Your task to perform on an android device: create a new album in the google photos Image 0: 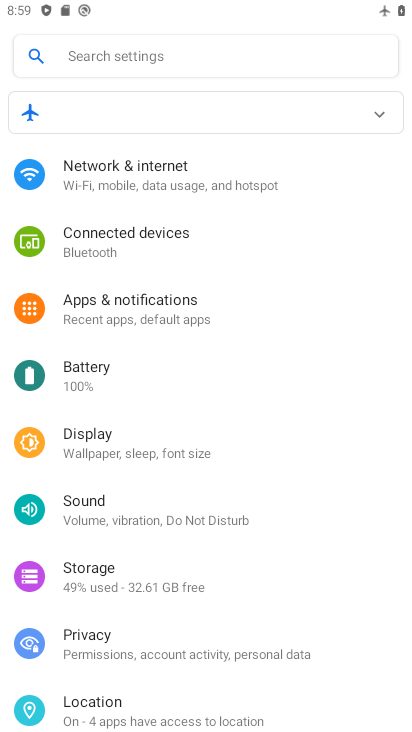
Step 0: press home button
Your task to perform on an android device: create a new album in the google photos Image 1: 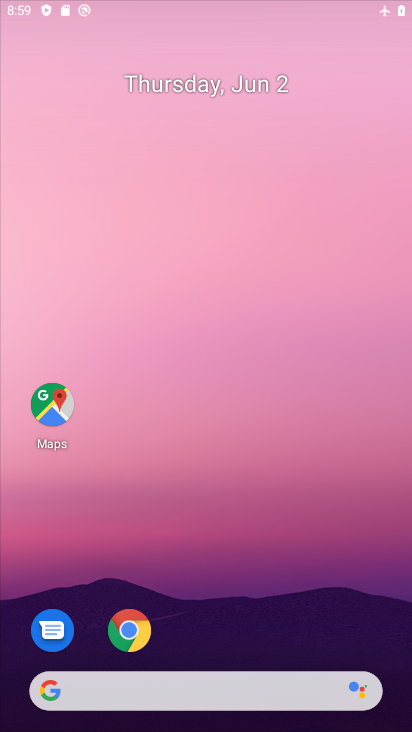
Step 1: drag from (208, 645) to (199, 60)
Your task to perform on an android device: create a new album in the google photos Image 2: 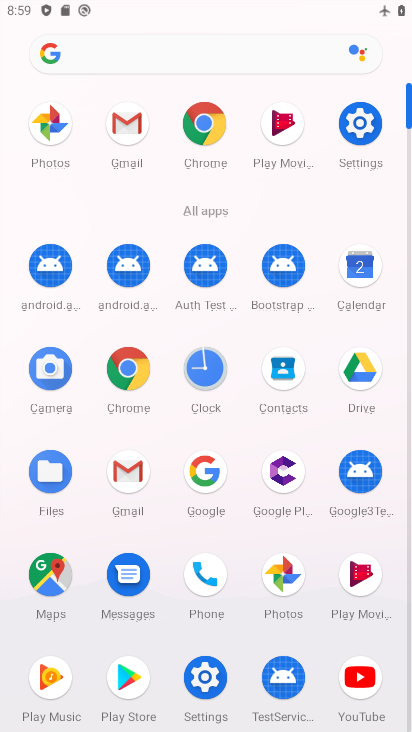
Step 2: click (286, 578)
Your task to perform on an android device: create a new album in the google photos Image 3: 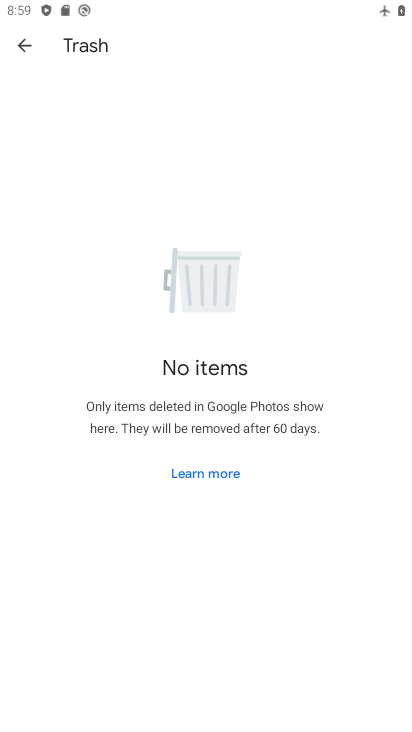
Step 3: press back button
Your task to perform on an android device: create a new album in the google photos Image 4: 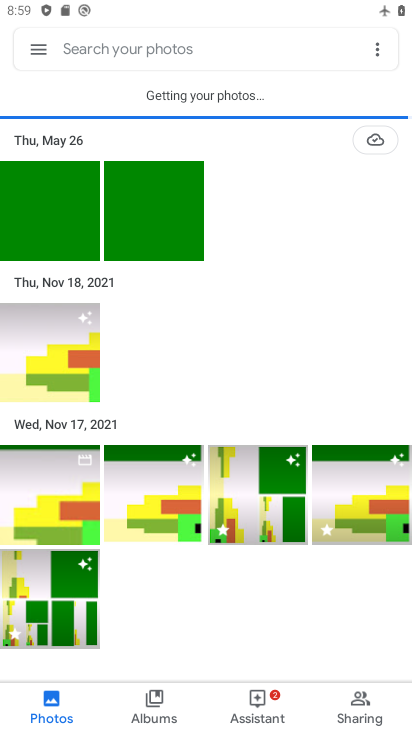
Step 4: click (167, 699)
Your task to perform on an android device: create a new album in the google photos Image 5: 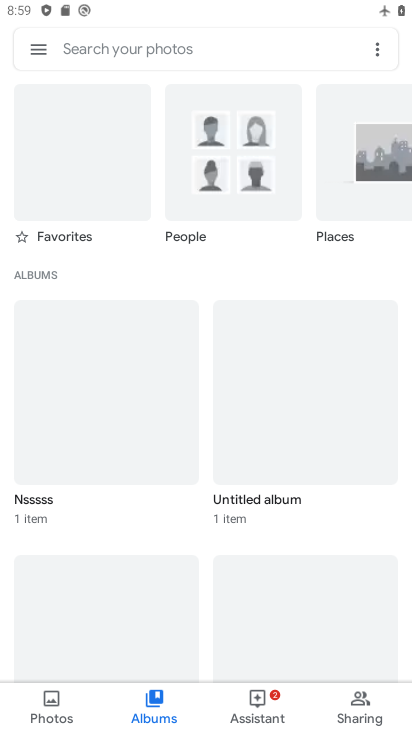
Step 5: task complete